Your task to perform on an android device: turn off smart reply in the gmail app Image 0: 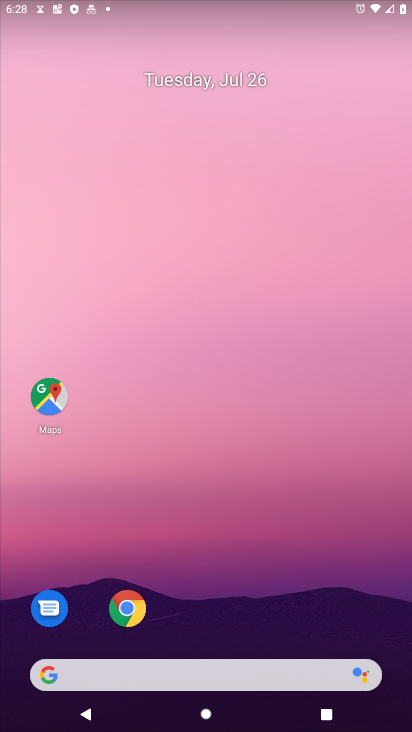
Step 0: press home button
Your task to perform on an android device: turn off smart reply in the gmail app Image 1: 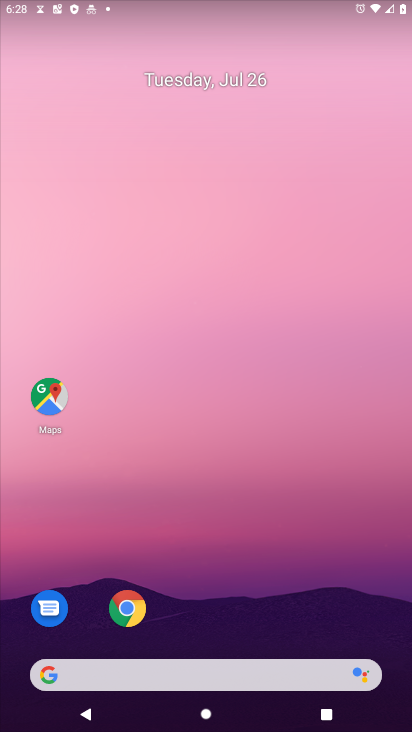
Step 1: drag from (217, 636) to (249, 192)
Your task to perform on an android device: turn off smart reply in the gmail app Image 2: 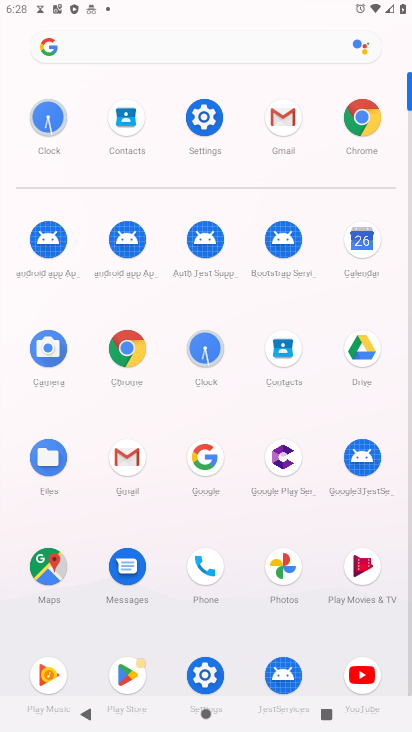
Step 2: click (280, 121)
Your task to perform on an android device: turn off smart reply in the gmail app Image 3: 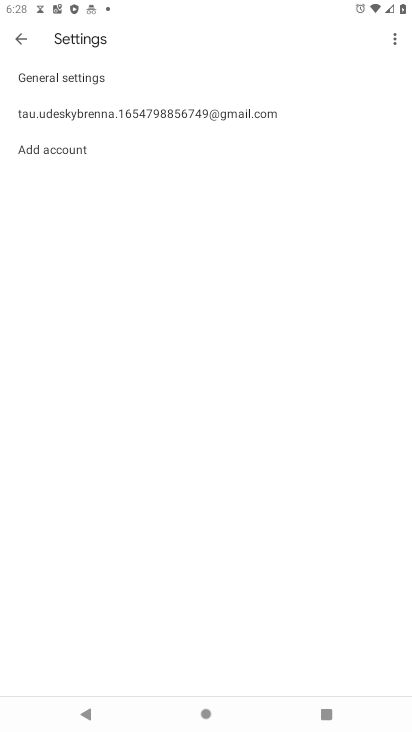
Step 3: click (100, 105)
Your task to perform on an android device: turn off smart reply in the gmail app Image 4: 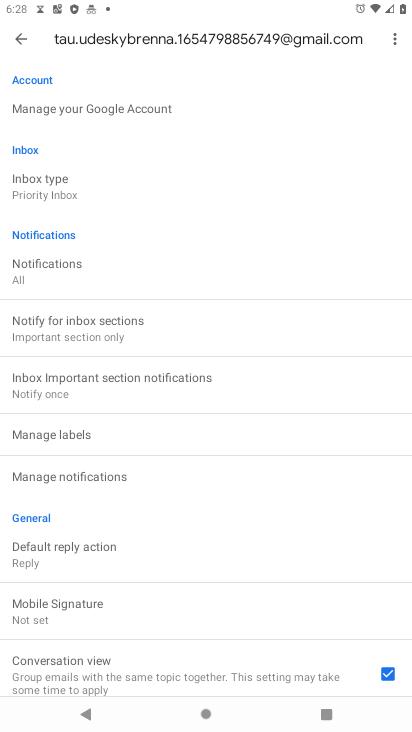
Step 4: drag from (245, 526) to (226, 1)
Your task to perform on an android device: turn off smart reply in the gmail app Image 5: 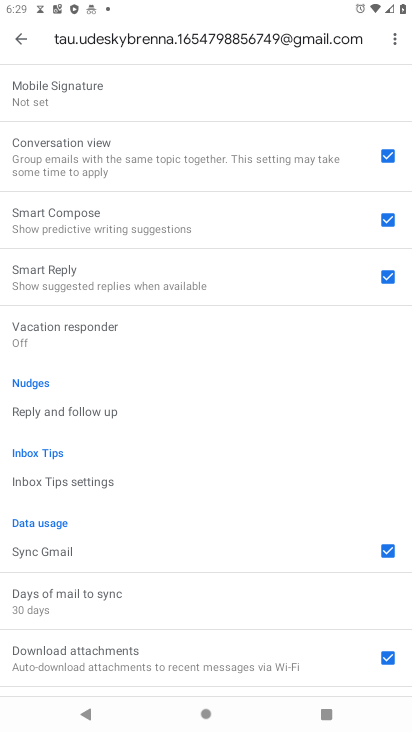
Step 5: click (381, 272)
Your task to perform on an android device: turn off smart reply in the gmail app Image 6: 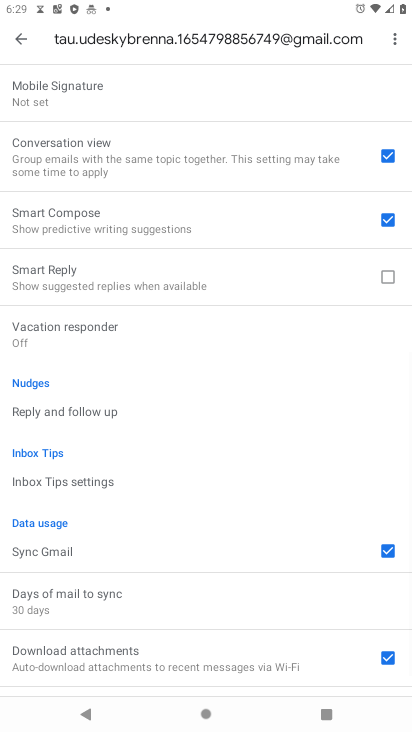
Step 6: task complete